Your task to perform on an android device: Show me recent news Image 0: 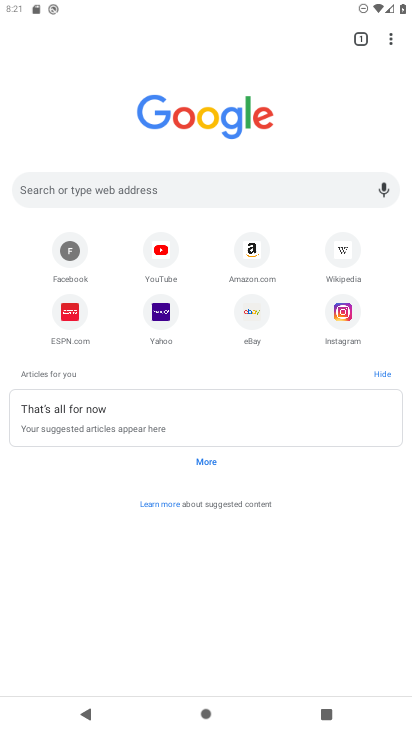
Step 0: press home button
Your task to perform on an android device: Show me recent news Image 1: 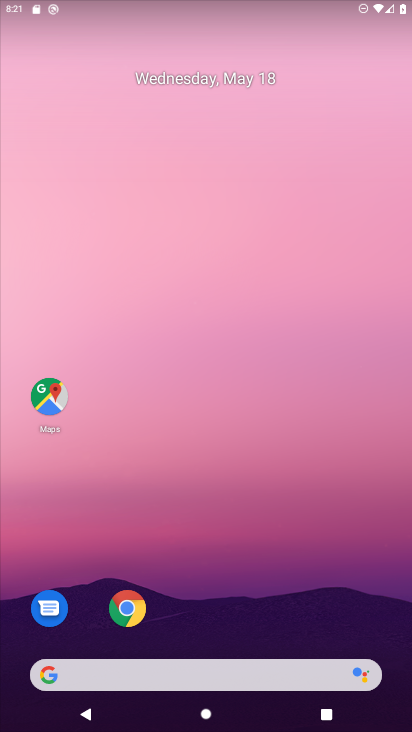
Step 1: task complete